Your task to perform on an android device: Set the phone to "Do not disturb". Image 0: 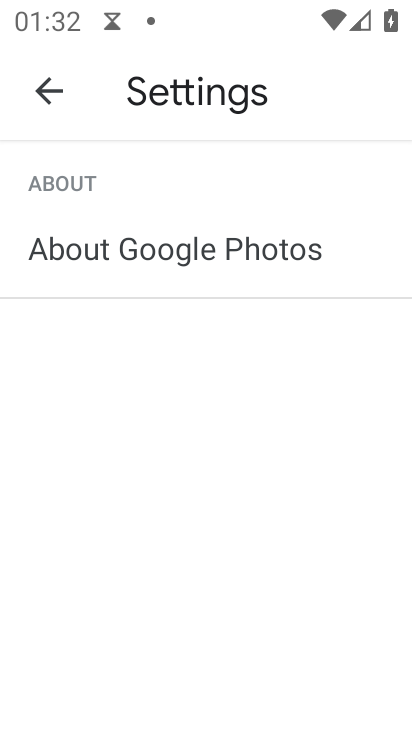
Step 0: press home button
Your task to perform on an android device: Set the phone to "Do not disturb". Image 1: 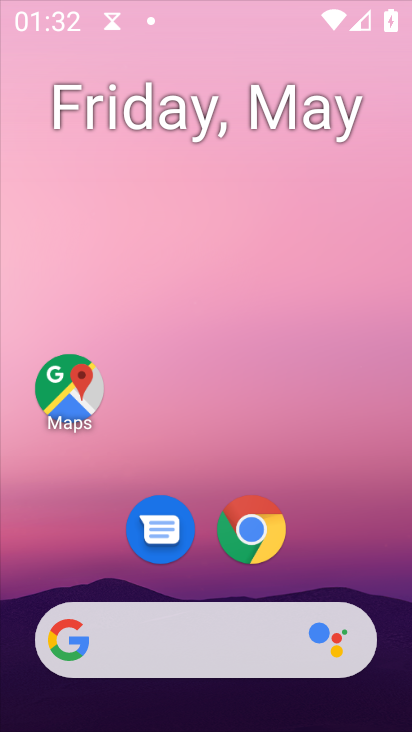
Step 1: drag from (317, 510) to (324, 186)
Your task to perform on an android device: Set the phone to "Do not disturb". Image 2: 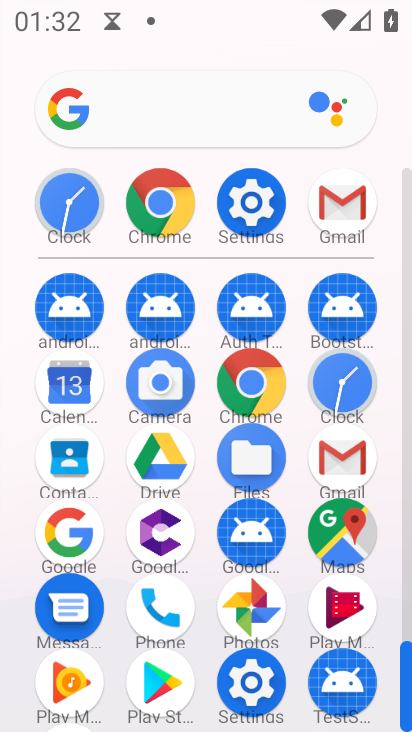
Step 2: drag from (164, 10) to (95, 725)
Your task to perform on an android device: Set the phone to "Do not disturb". Image 3: 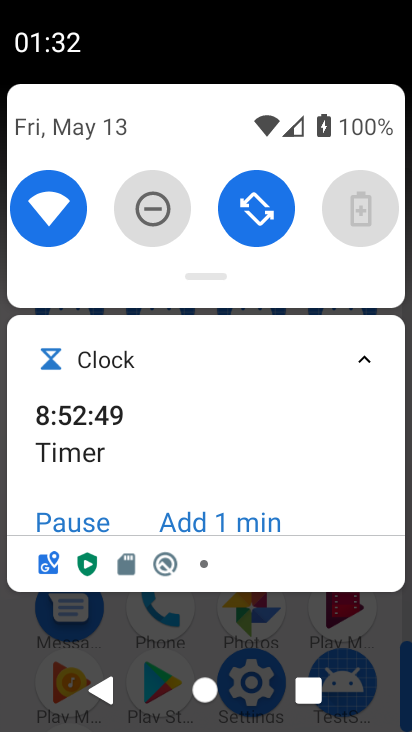
Step 3: click (128, 234)
Your task to perform on an android device: Set the phone to "Do not disturb". Image 4: 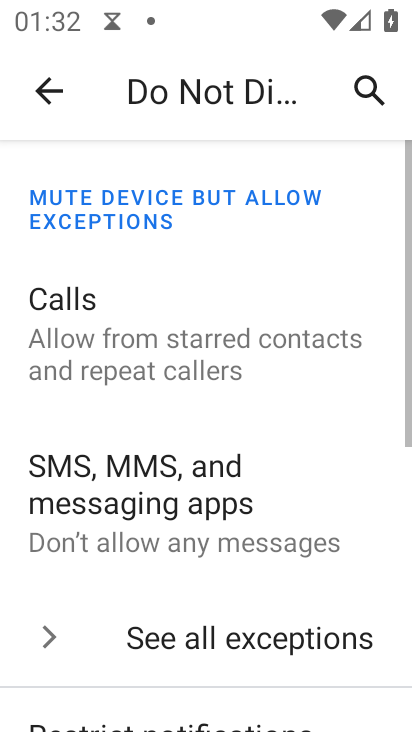
Step 4: drag from (178, 621) to (216, 230)
Your task to perform on an android device: Set the phone to "Do not disturb". Image 5: 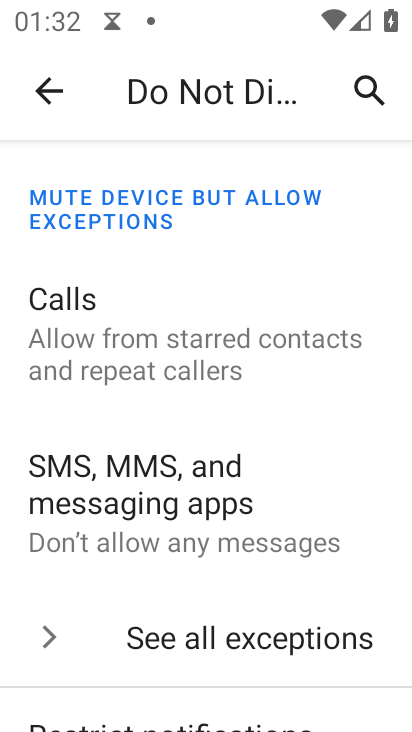
Step 5: drag from (181, 660) to (205, 400)
Your task to perform on an android device: Set the phone to "Do not disturb". Image 6: 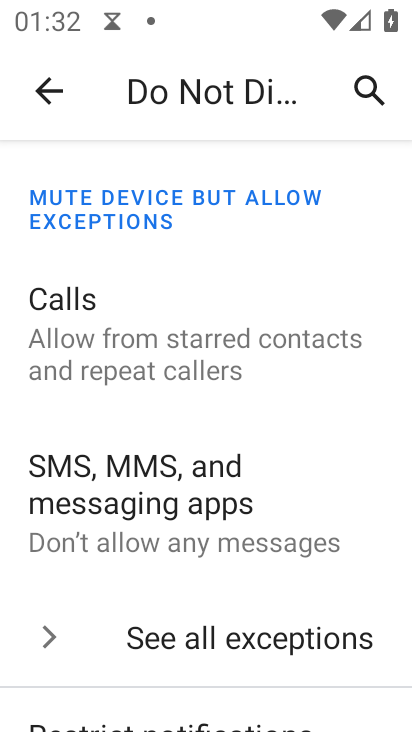
Step 6: drag from (189, 548) to (197, 164)
Your task to perform on an android device: Set the phone to "Do not disturb". Image 7: 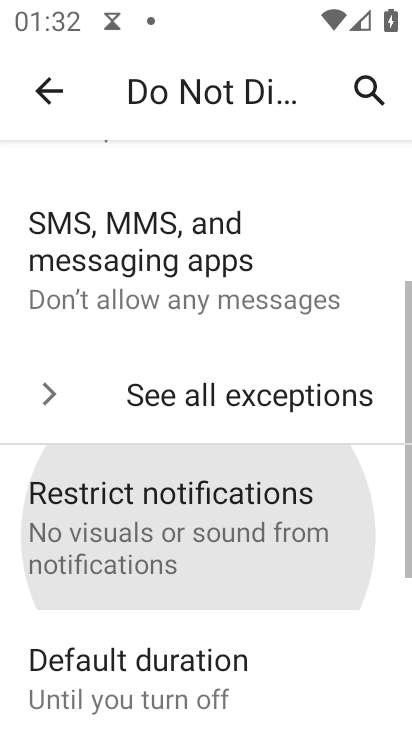
Step 7: drag from (162, 500) to (202, 223)
Your task to perform on an android device: Set the phone to "Do not disturb". Image 8: 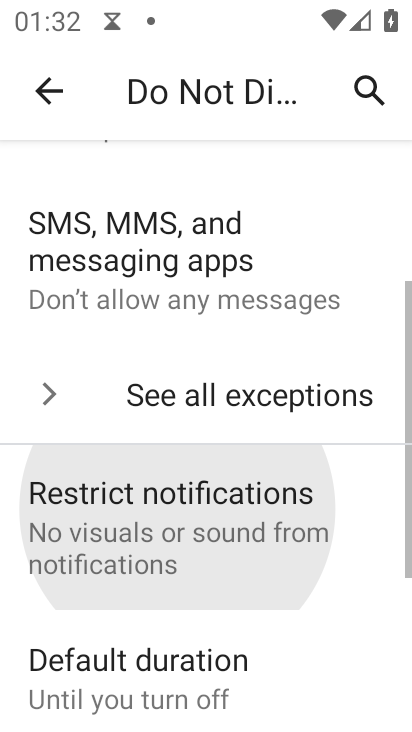
Step 8: drag from (164, 603) to (205, 208)
Your task to perform on an android device: Set the phone to "Do not disturb". Image 9: 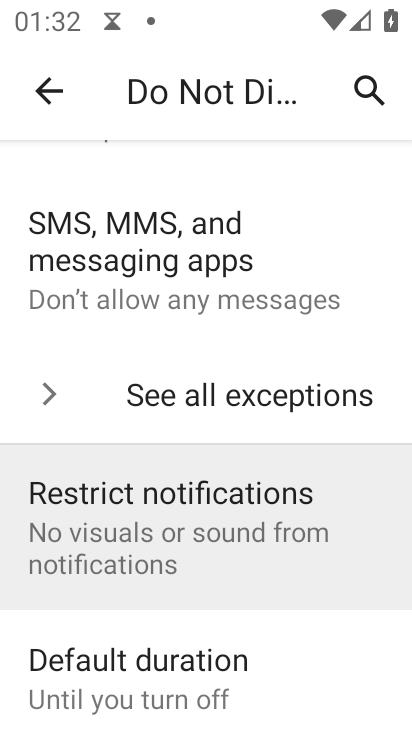
Step 9: drag from (147, 657) to (263, 295)
Your task to perform on an android device: Set the phone to "Do not disturb". Image 10: 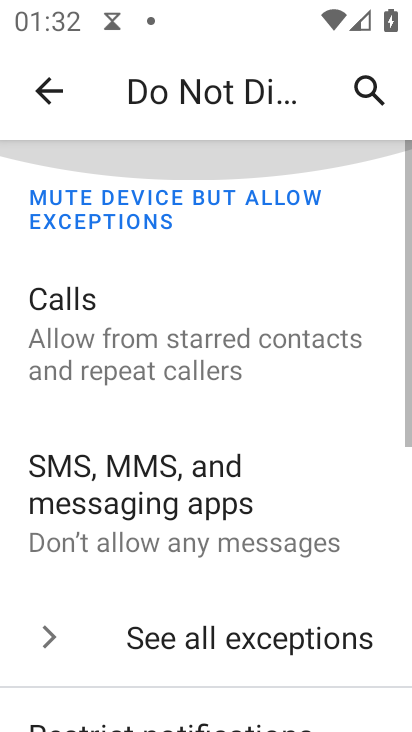
Step 10: drag from (224, 590) to (221, 329)
Your task to perform on an android device: Set the phone to "Do not disturb". Image 11: 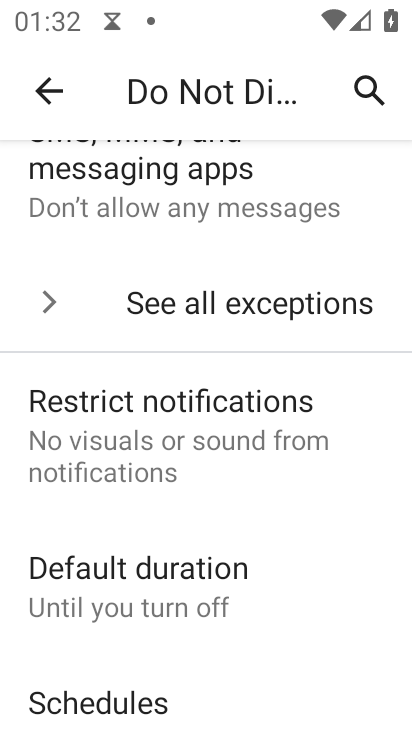
Step 11: drag from (250, 628) to (274, 253)
Your task to perform on an android device: Set the phone to "Do not disturb". Image 12: 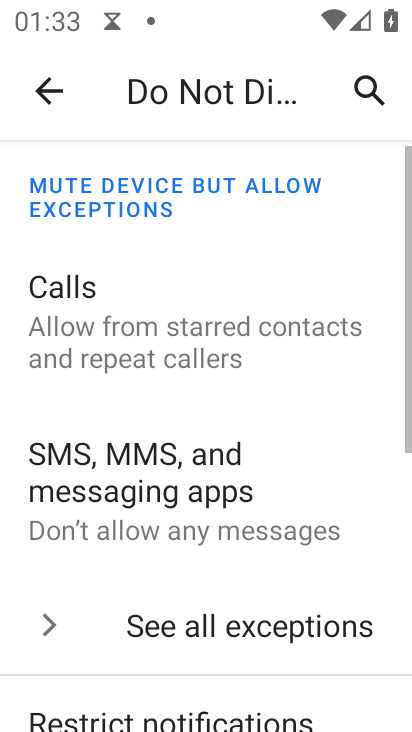
Step 12: drag from (196, 572) to (258, 233)
Your task to perform on an android device: Set the phone to "Do not disturb". Image 13: 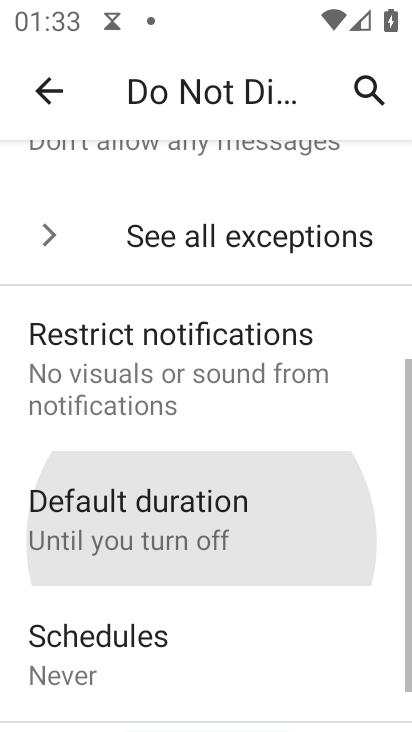
Step 13: drag from (160, 647) to (186, 271)
Your task to perform on an android device: Set the phone to "Do not disturb". Image 14: 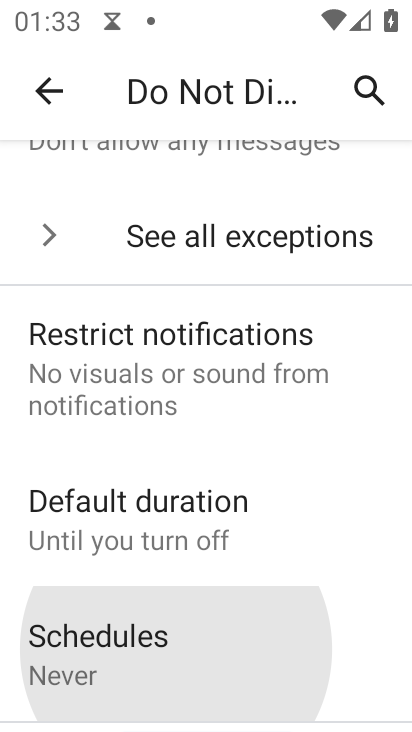
Step 14: drag from (118, 629) to (182, 361)
Your task to perform on an android device: Set the phone to "Do not disturb". Image 15: 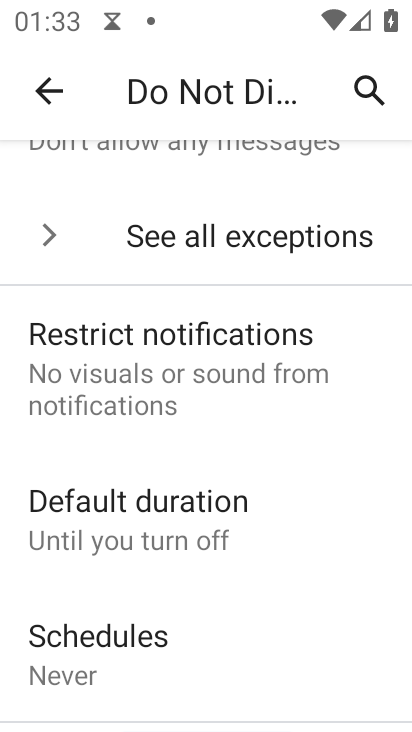
Step 15: drag from (137, 658) to (175, 308)
Your task to perform on an android device: Set the phone to "Do not disturb". Image 16: 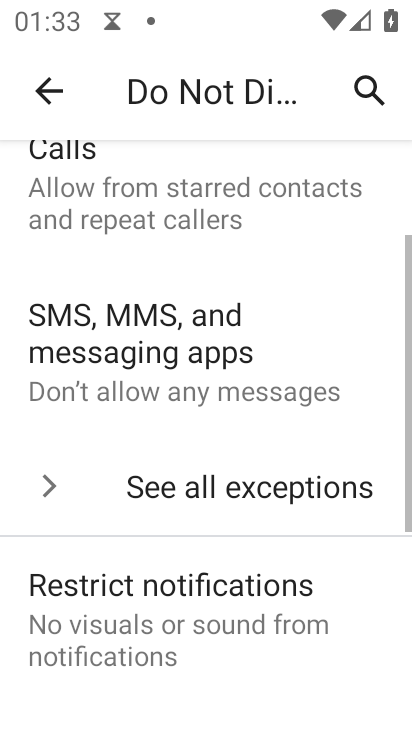
Step 16: drag from (149, 501) to (222, 163)
Your task to perform on an android device: Set the phone to "Do not disturb". Image 17: 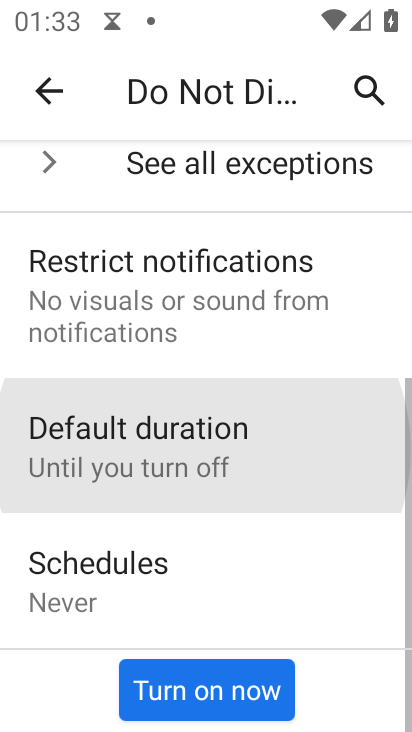
Step 17: drag from (166, 467) to (226, 111)
Your task to perform on an android device: Set the phone to "Do not disturb". Image 18: 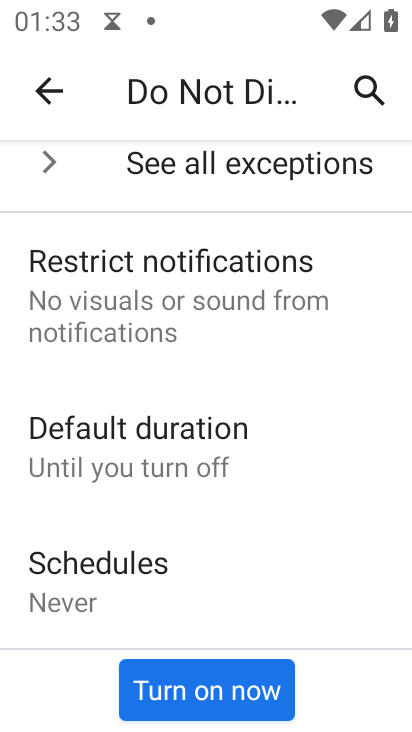
Step 18: click (188, 677)
Your task to perform on an android device: Set the phone to "Do not disturb". Image 19: 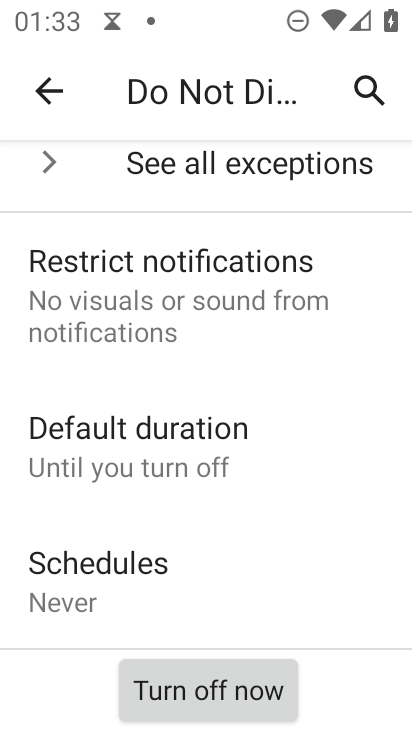
Step 19: task complete